Your task to perform on an android device: turn off location Image 0: 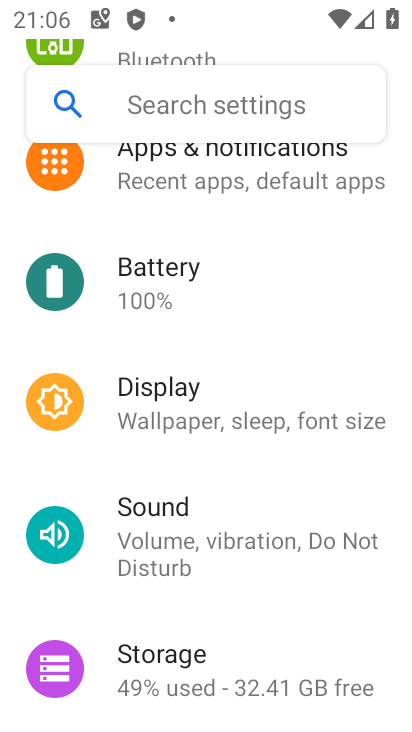
Step 0: drag from (208, 628) to (253, 206)
Your task to perform on an android device: turn off location Image 1: 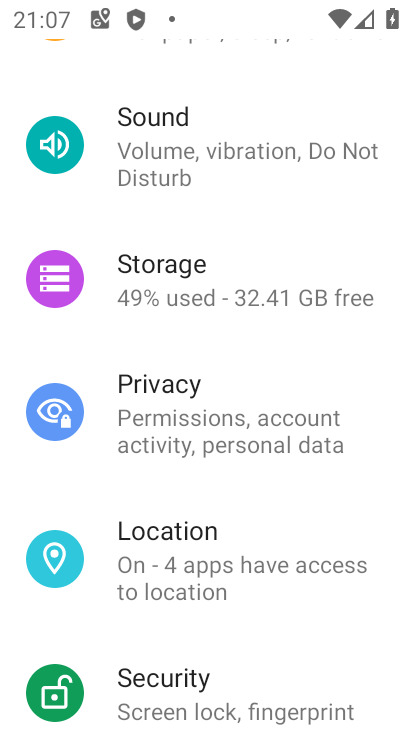
Step 1: click (150, 563)
Your task to perform on an android device: turn off location Image 2: 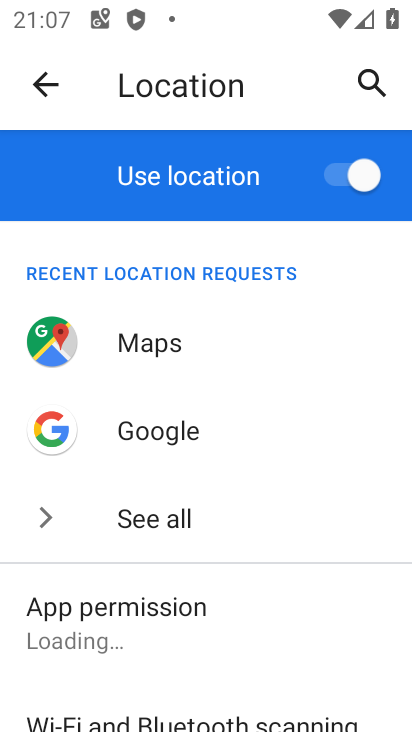
Step 2: click (346, 179)
Your task to perform on an android device: turn off location Image 3: 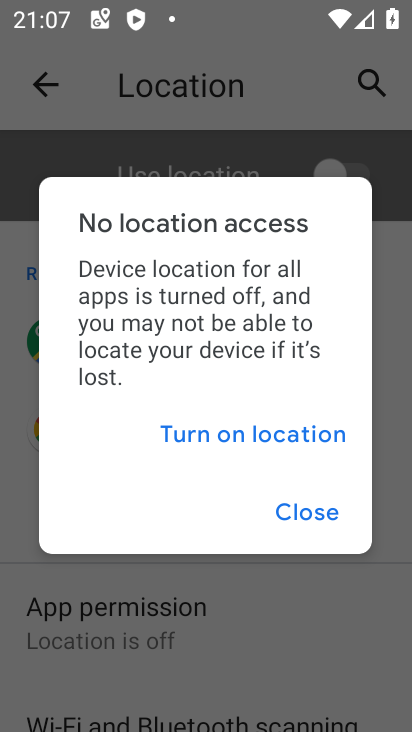
Step 3: task complete